Your task to perform on an android device: check android version Image 0: 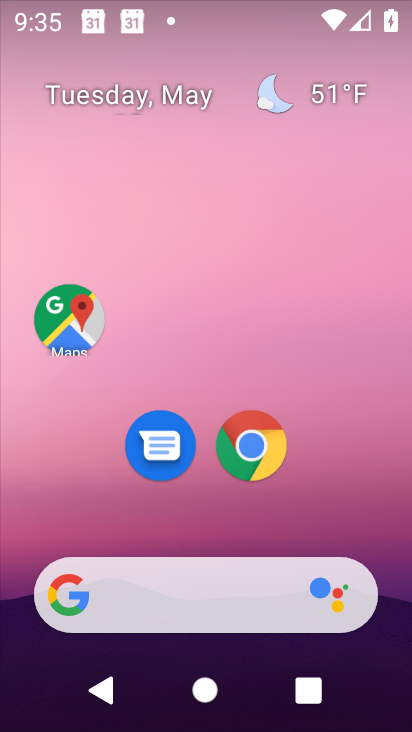
Step 0: drag from (136, 581) to (2, 110)
Your task to perform on an android device: check android version Image 1: 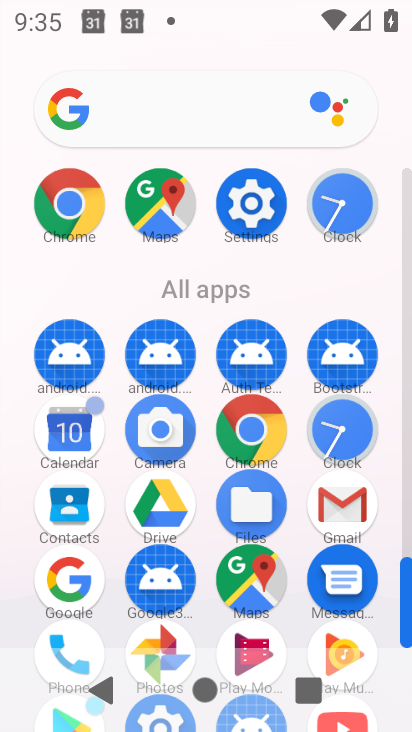
Step 1: click (254, 220)
Your task to perform on an android device: check android version Image 2: 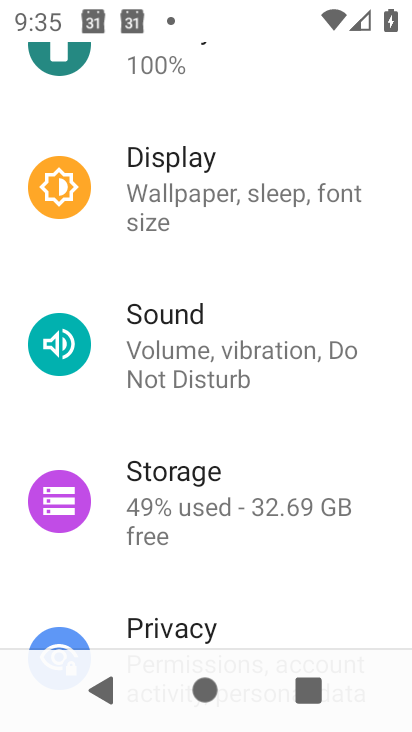
Step 2: drag from (229, 635) to (181, 32)
Your task to perform on an android device: check android version Image 3: 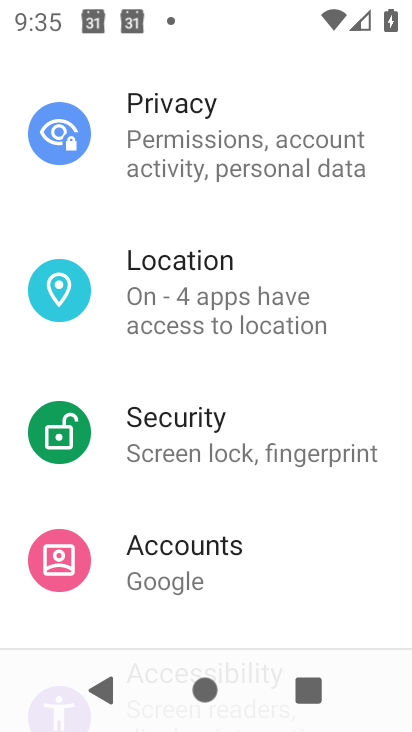
Step 3: click (181, 32)
Your task to perform on an android device: check android version Image 4: 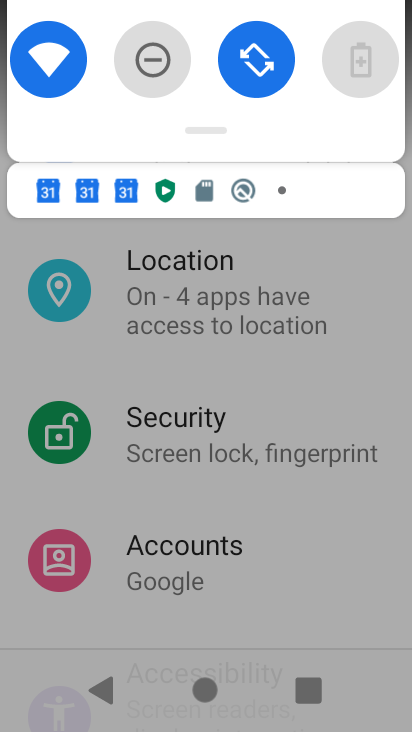
Step 4: drag from (266, 531) to (62, 29)
Your task to perform on an android device: check android version Image 5: 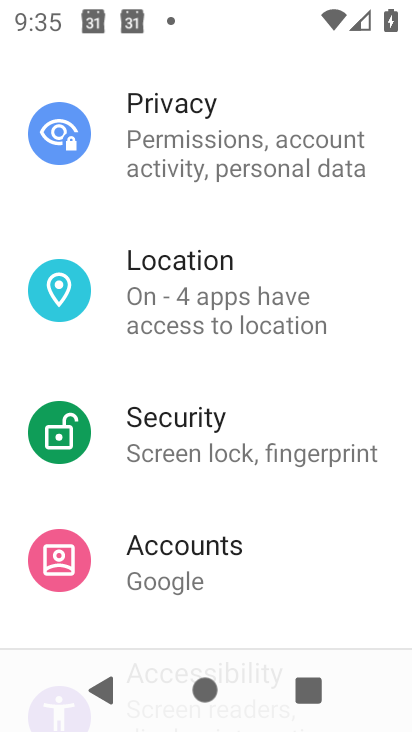
Step 5: drag from (178, 443) to (2, 301)
Your task to perform on an android device: check android version Image 6: 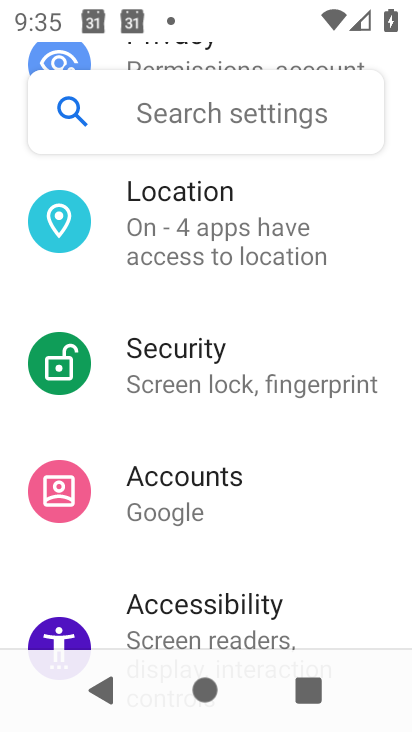
Step 6: drag from (171, 585) to (162, 30)
Your task to perform on an android device: check android version Image 7: 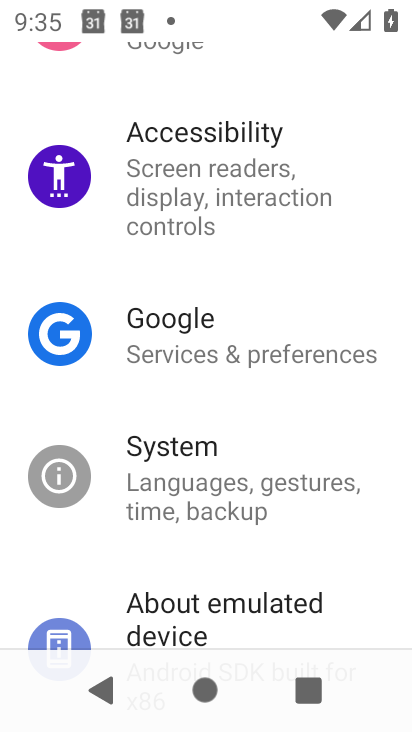
Step 7: click (181, 600)
Your task to perform on an android device: check android version Image 8: 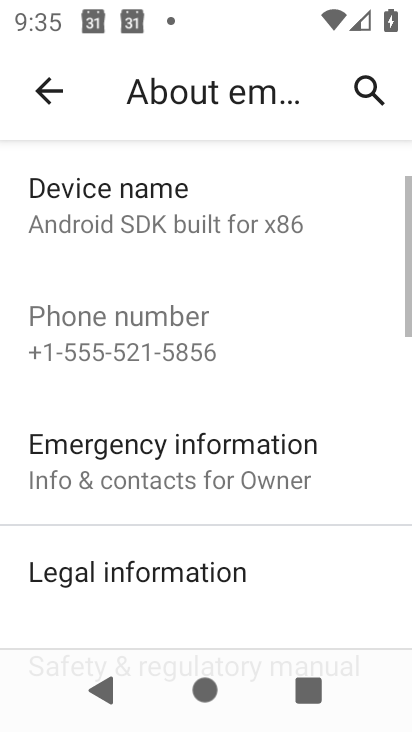
Step 8: drag from (165, 536) to (3, 177)
Your task to perform on an android device: check android version Image 9: 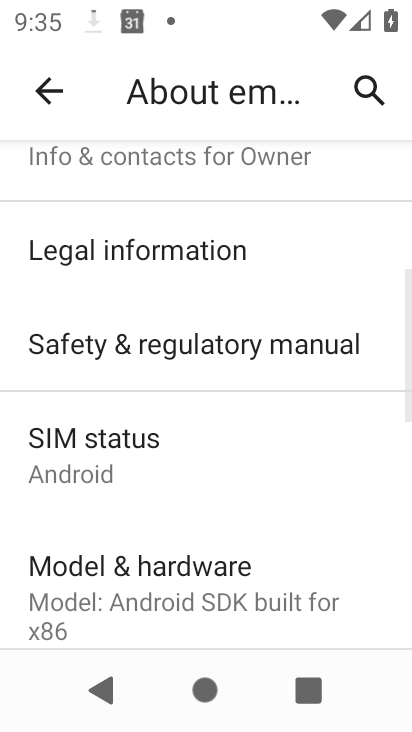
Step 9: drag from (175, 577) to (143, 178)
Your task to perform on an android device: check android version Image 10: 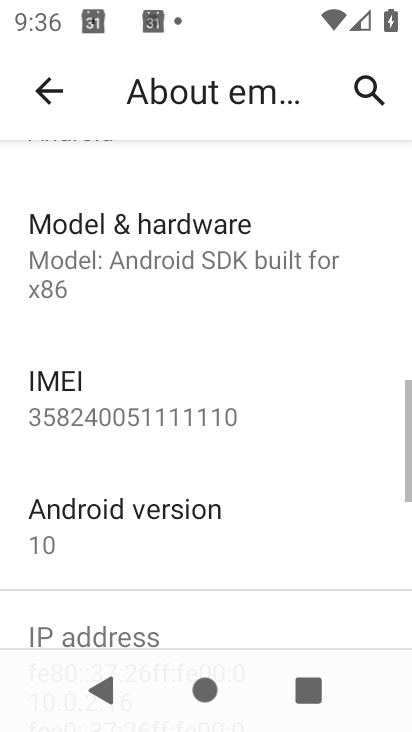
Step 10: click (129, 533)
Your task to perform on an android device: check android version Image 11: 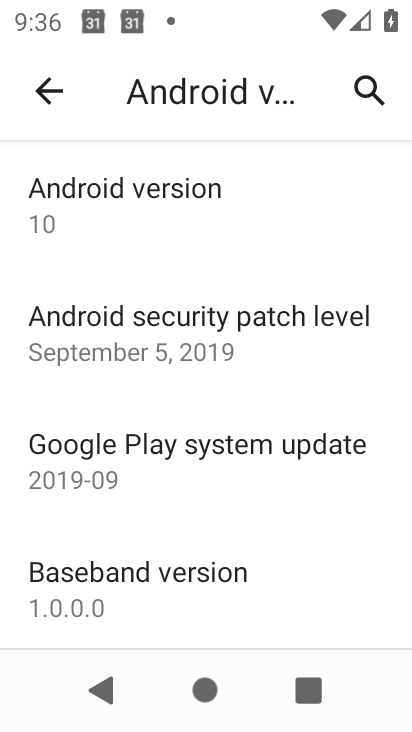
Step 11: task complete